Your task to perform on an android device: toggle airplane mode Image 0: 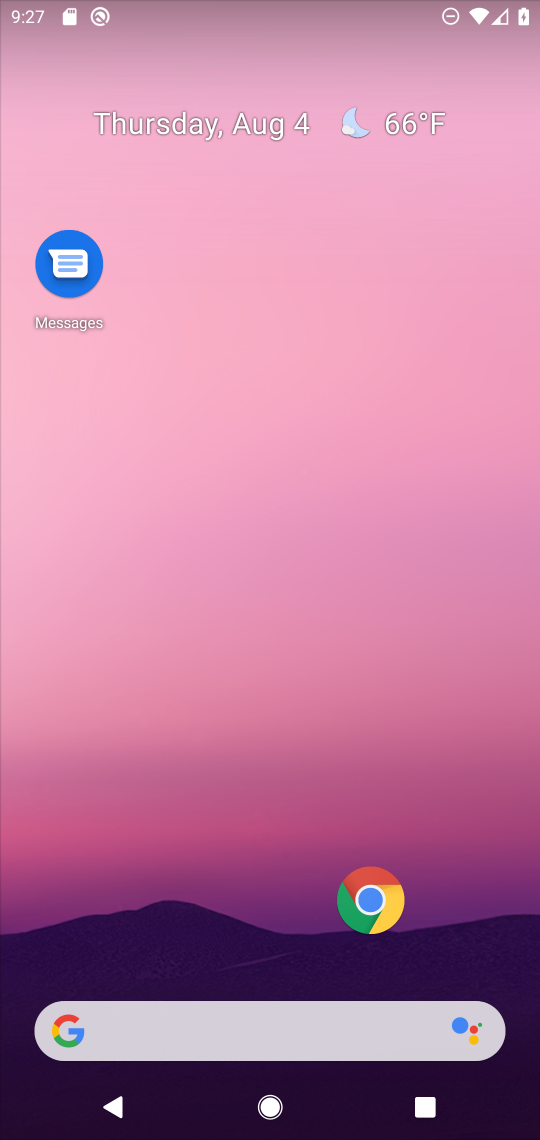
Step 0: drag from (306, 1000) to (420, 263)
Your task to perform on an android device: toggle airplane mode Image 1: 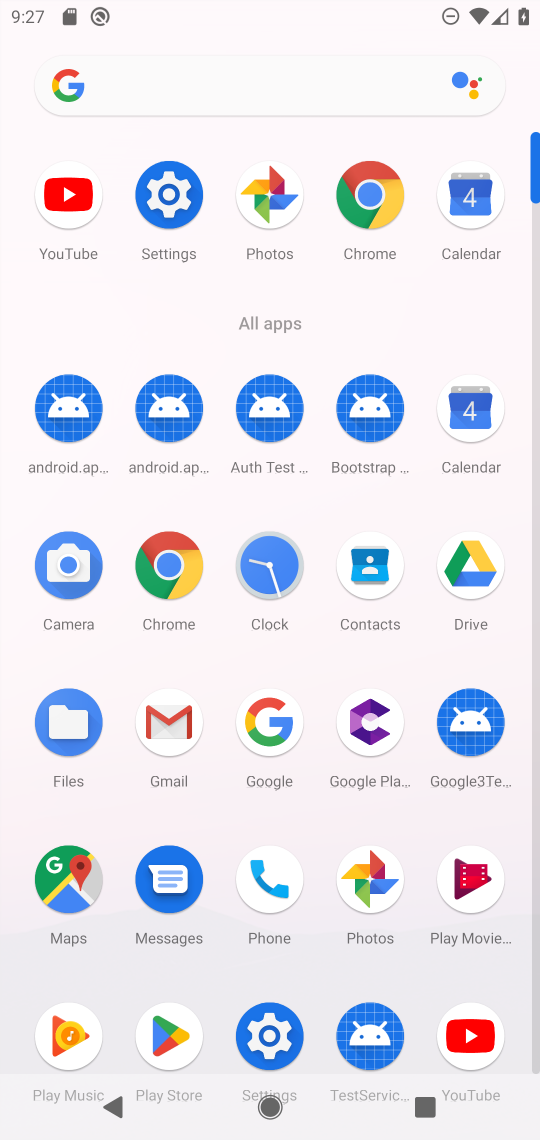
Step 1: click (154, 200)
Your task to perform on an android device: toggle airplane mode Image 2: 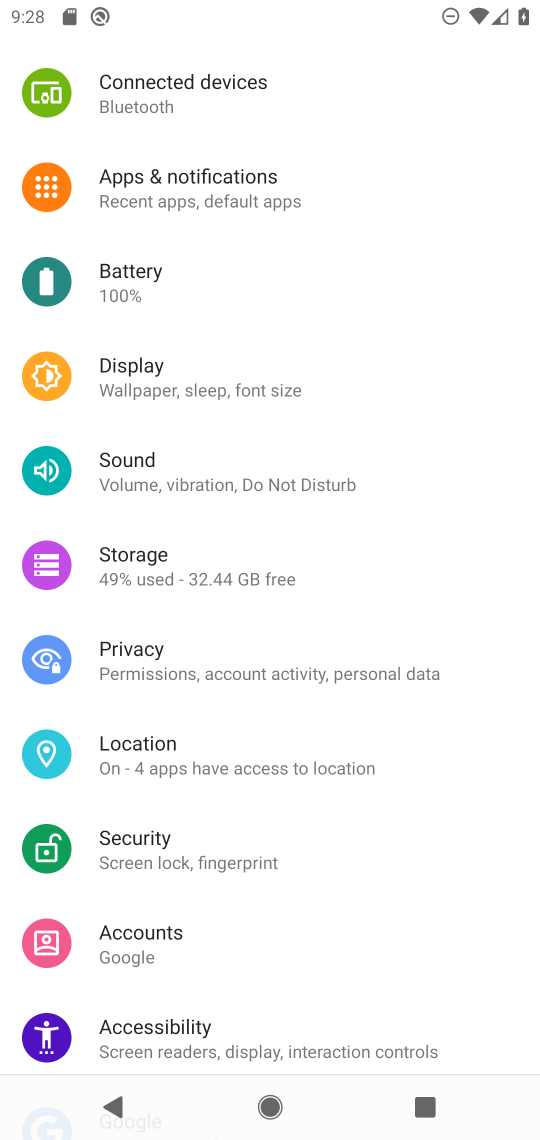
Step 2: drag from (246, 126) to (296, 656)
Your task to perform on an android device: toggle airplane mode Image 3: 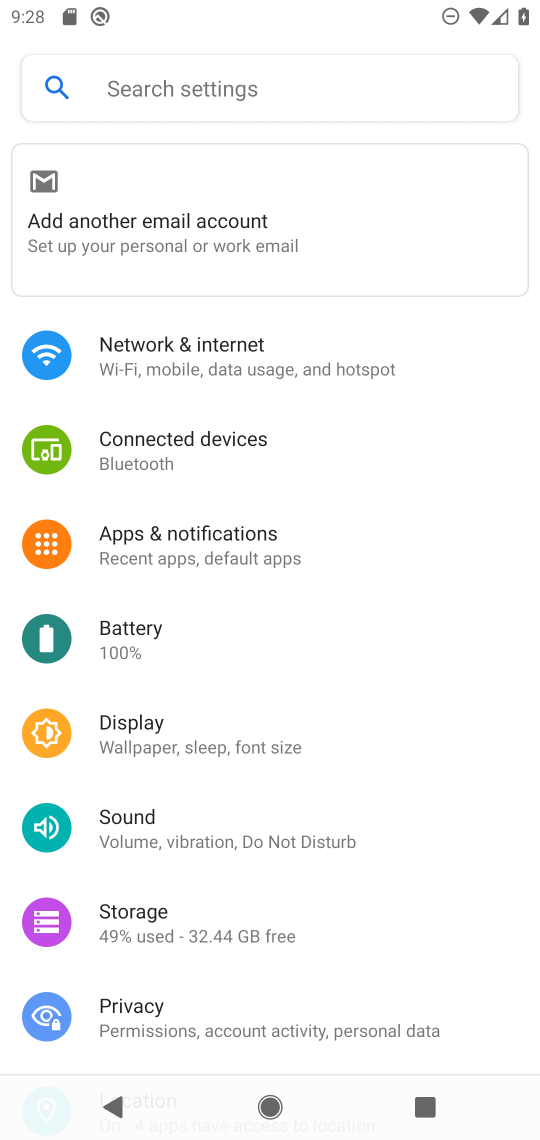
Step 3: click (267, 363)
Your task to perform on an android device: toggle airplane mode Image 4: 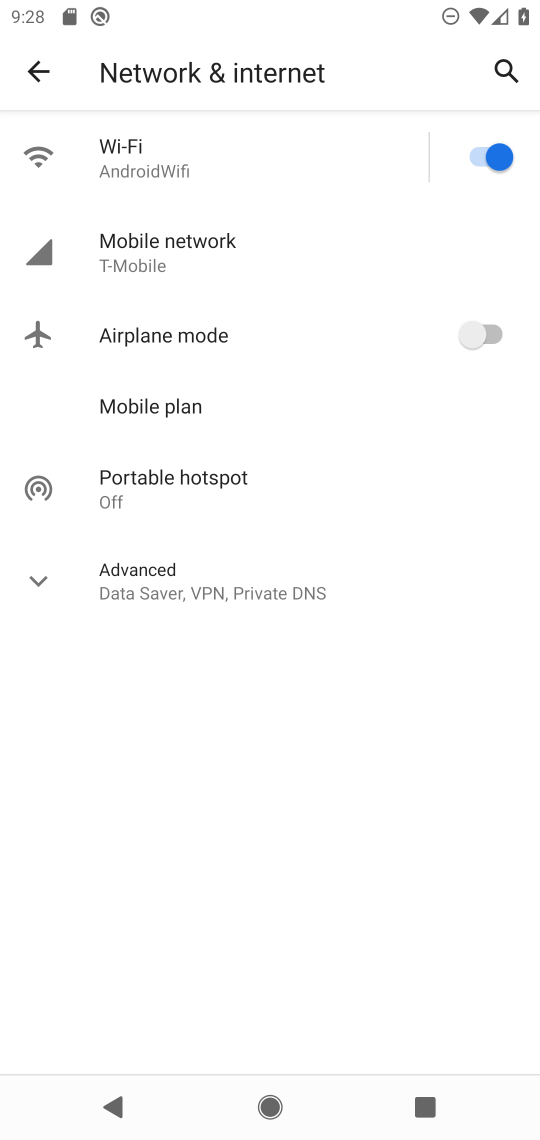
Step 4: click (478, 338)
Your task to perform on an android device: toggle airplane mode Image 5: 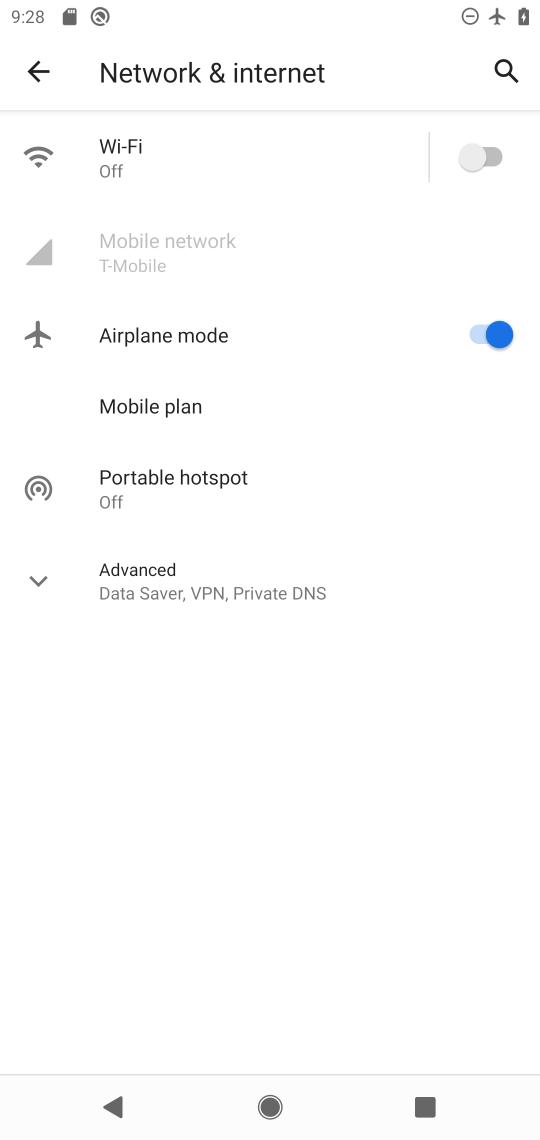
Step 5: task complete